Your task to perform on an android device: Open eBay Image 0: 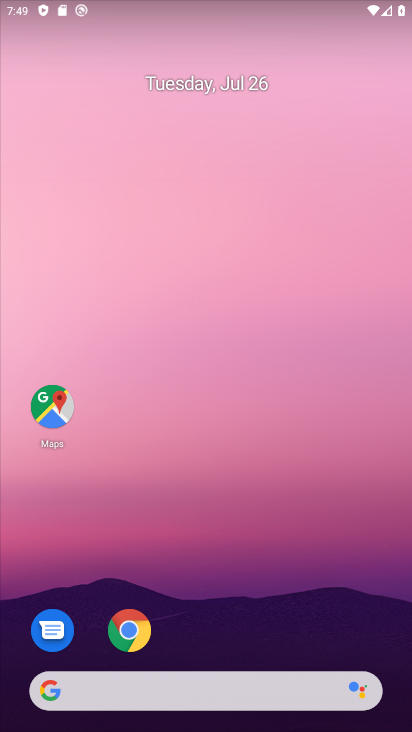
Step 0: drag from (273, 660) to (257, 62)
Your task to perform on an android device: Open eBay Image 1: 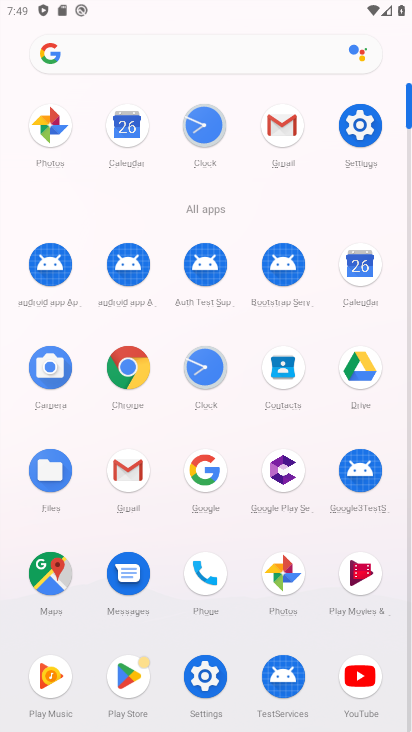
Step 1: click (364, 134)
Your task to perform on an android device: Open eBay Image 2: 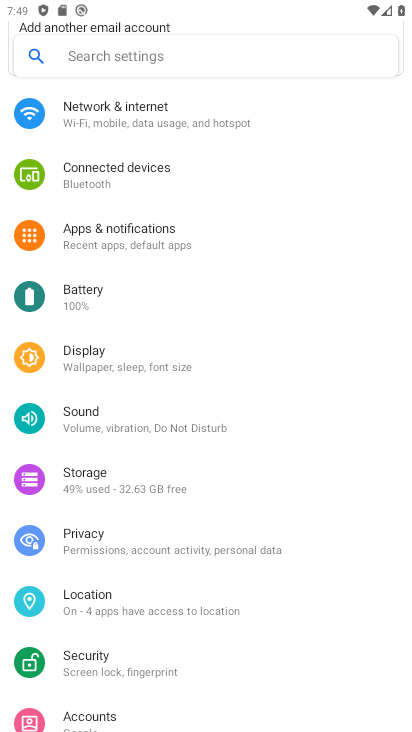
Step 2: press home button
Your task to perform on an android device: Open eBay Image 3: 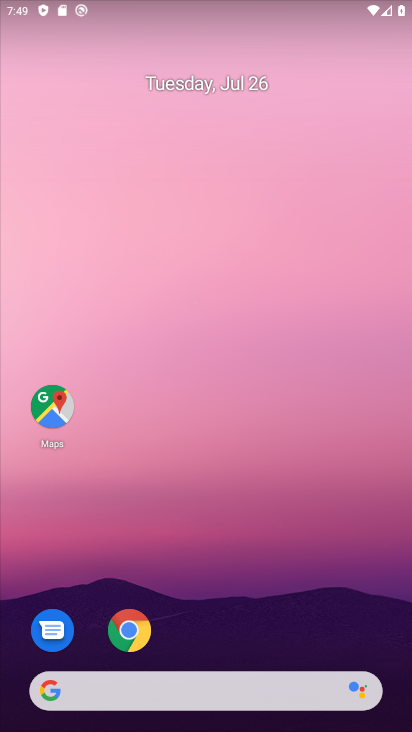
Step 3: click (218, 697)
Your task to perform on an android device: Open eBay Image 4: 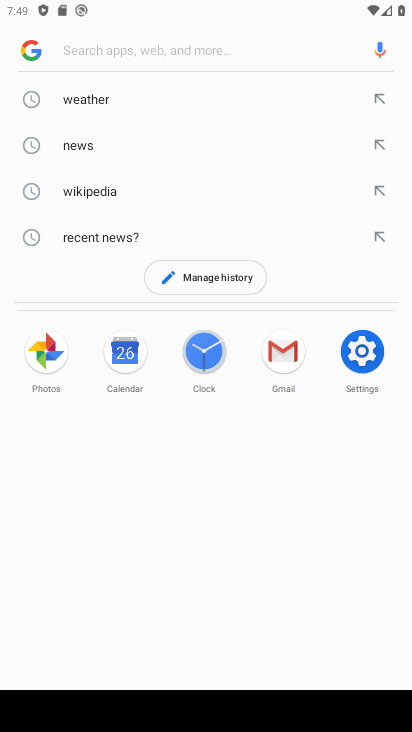
Step 4: type "ebay.com"
Your task to perform on an android device: Open eBay Image 5: 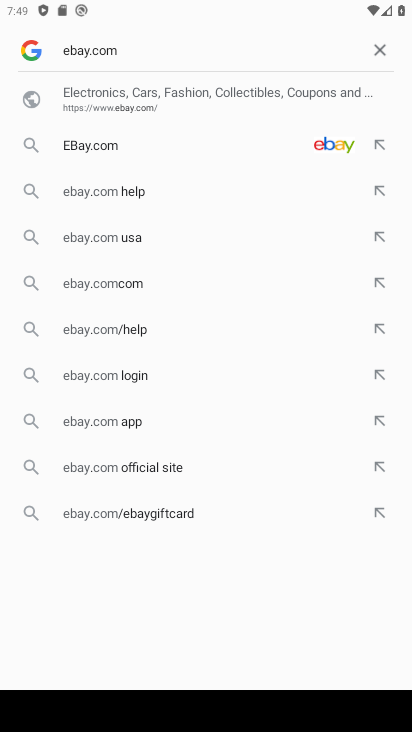
Step 5: click (148, 111)
Your task to perform on an android device: Open eBay Image 6: 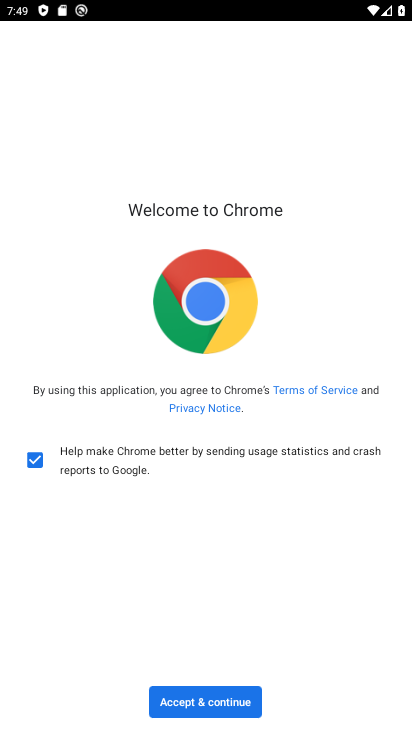
Step 6: click (189, 712)
Your task to perform on an android device: Open eBay Image 7: 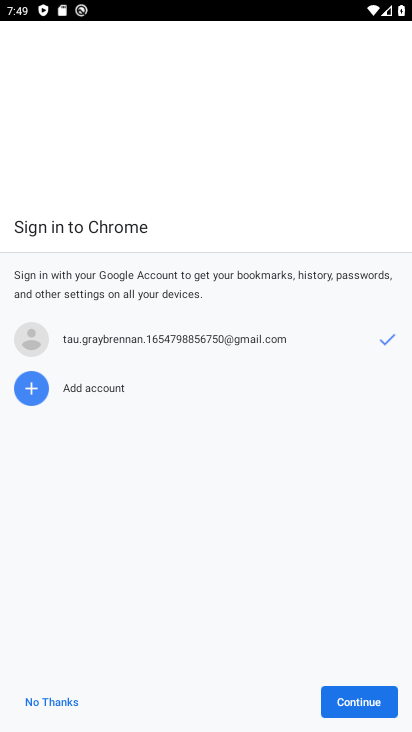
Step 7: task complete